Your task to perform on an android device: Toggle the flashlight Image 0: 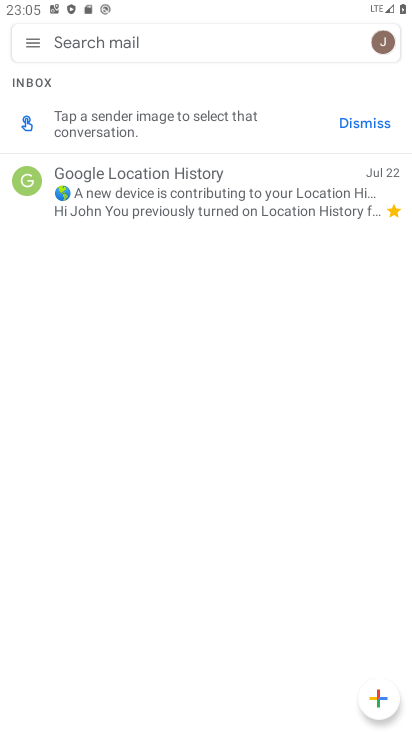
Step 0: press home button
Your task to perform on an android device: Toggle the flashlight Image 1: 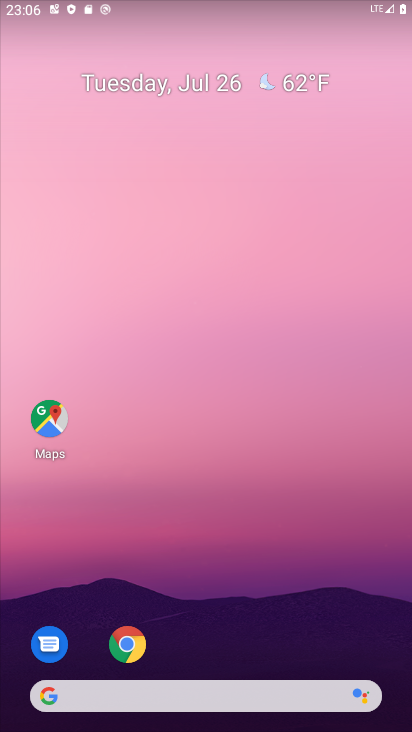
Step 1: task complete